Your task to perform on an android device: Open settings Image 0: 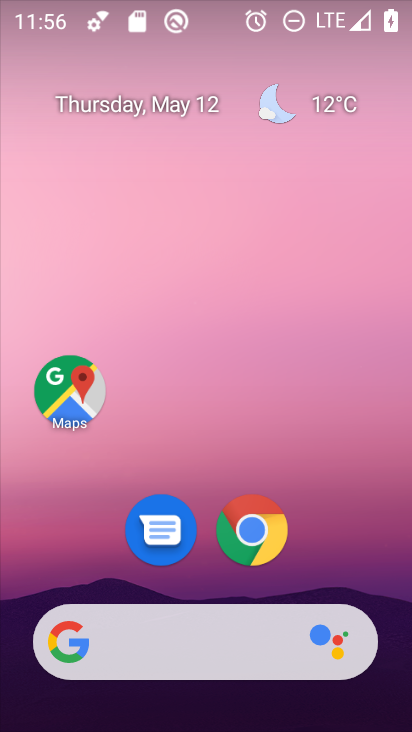
Step 0: drag from (138, 625) to (208, 182)
Your task to perform on an android device: Open settings Image 1: 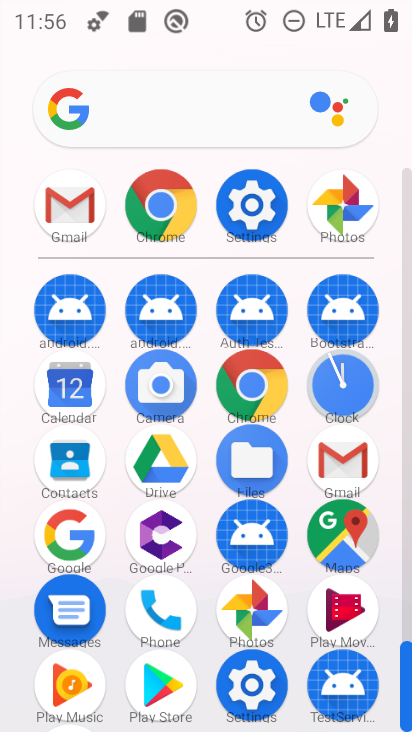
Step 1: click (267, 197)
Your task to perform on an android device: Open settings Image 2: 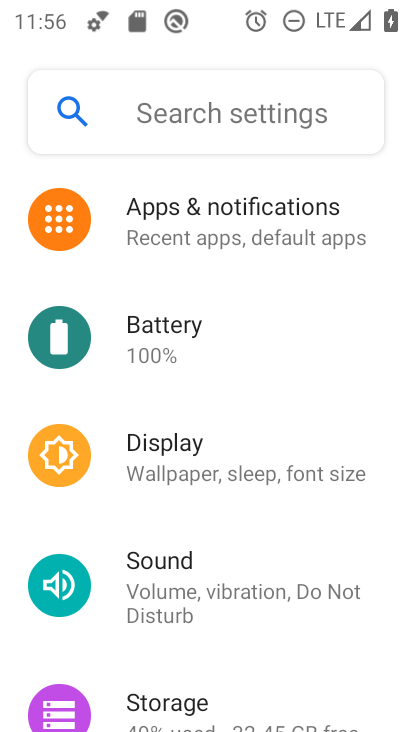
Step 2: task complete